Your task to perform on an android device: Check the weather Image 0: 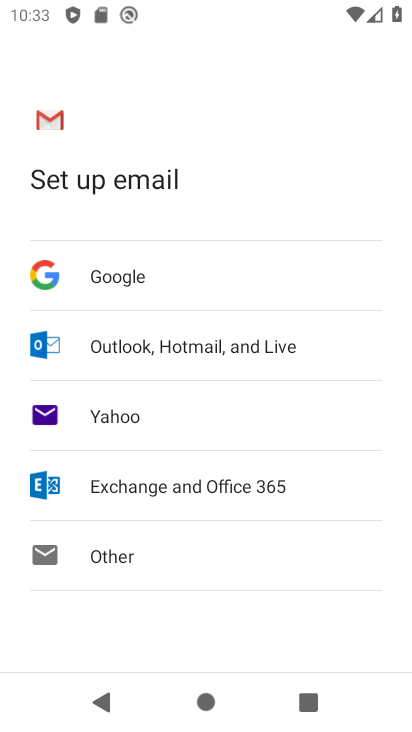
Step 0: press home button
Your task to perform on an android device: Check the weather Image 1: 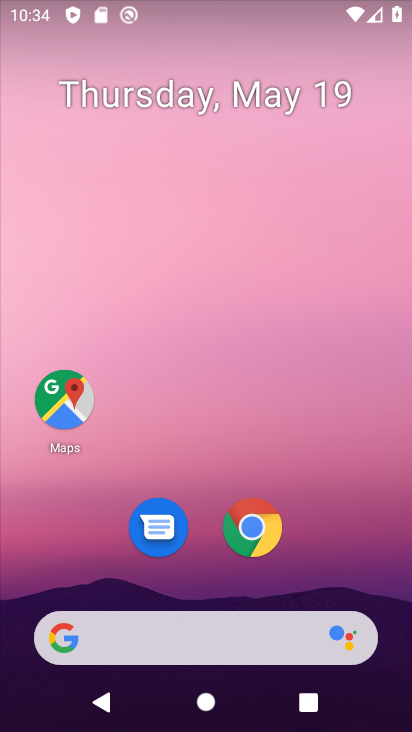
Step 1: click (221, 634)
Your task to perform on an android device: Check the weather Image 2: 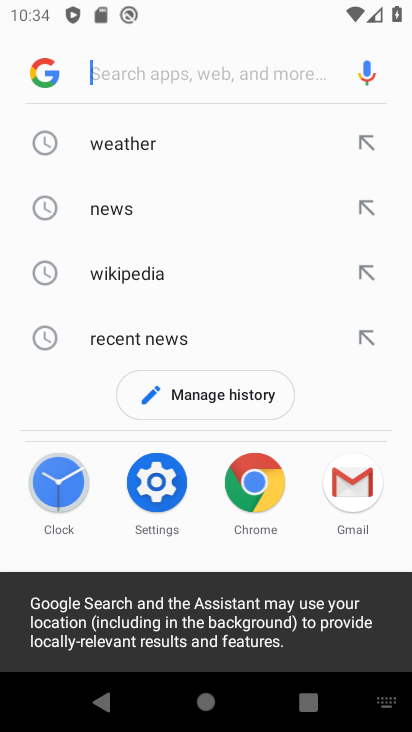
Step 2: click (150, 137)
Your task to perform on an android device: Check the weather Image 3: 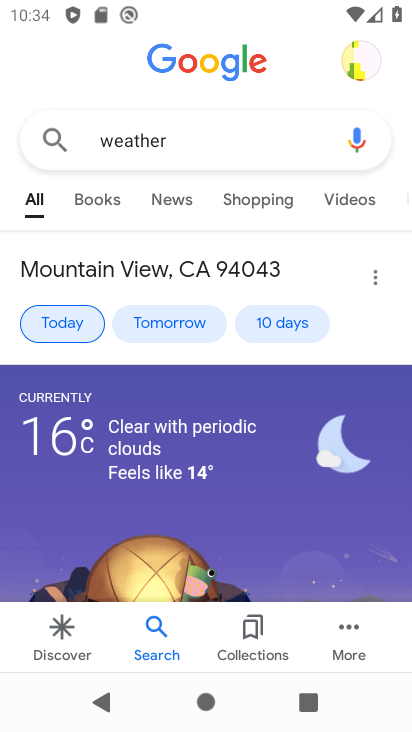
Step 3: task complete